Your task to perform on an android device: turn off improve location accuracy Image 0: 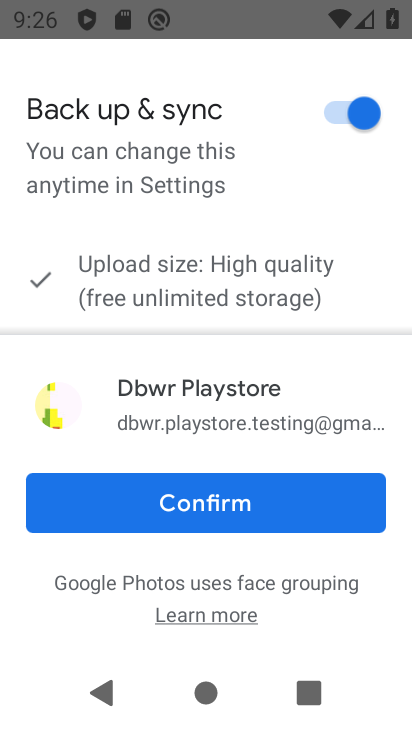
Step 0: press home button
Your task to perform on an android device: turn off improve location accuracy Image 1: 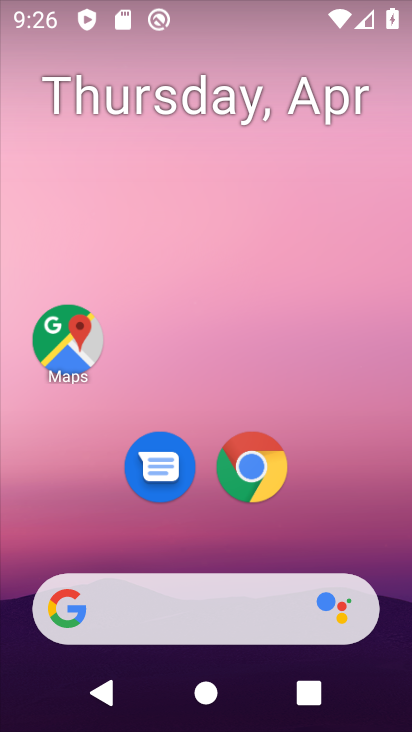
Step 1: drag from (344, 543) to (323, 235)
Your task to perform on an android device: turn off improve location accuracy Image 2: 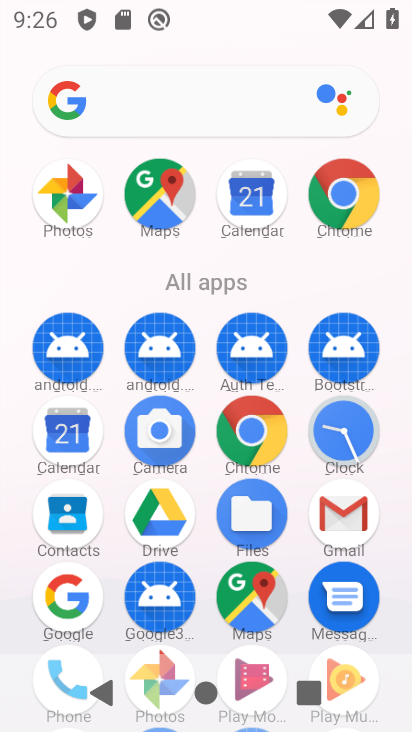
Step 2: click (409, 651)
Your task to perform on an android device: turn off improve location accuracy Image 3: 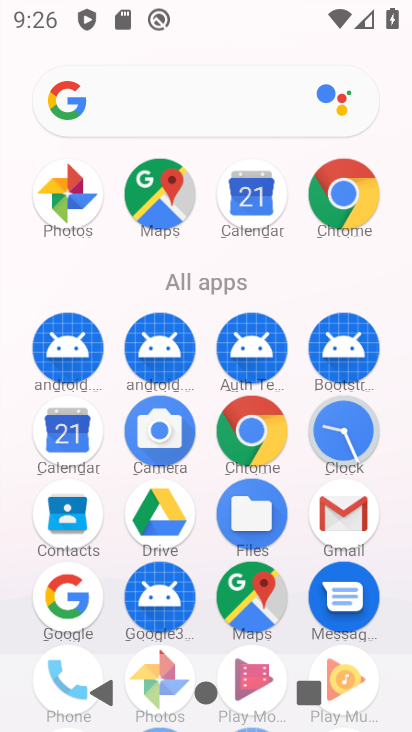
Step 3: drag from (394, 637) to (400, 386)
Your task to perform on an android device: turn off improve location accuracy Image 4: 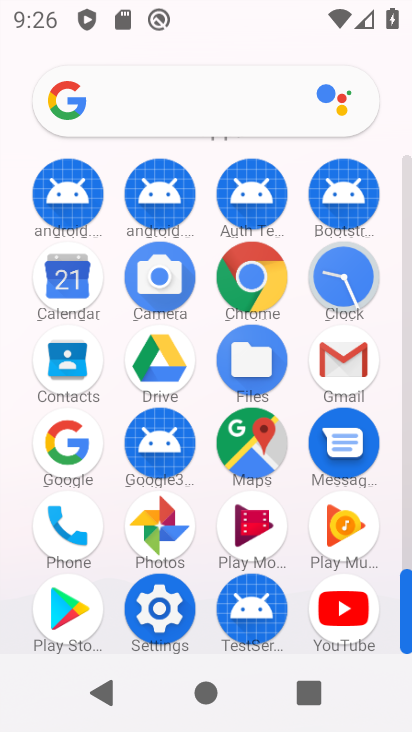
Step 4: click (153, 605)
Your task to perform on an android device: turn off improve location accuracy Image 5: 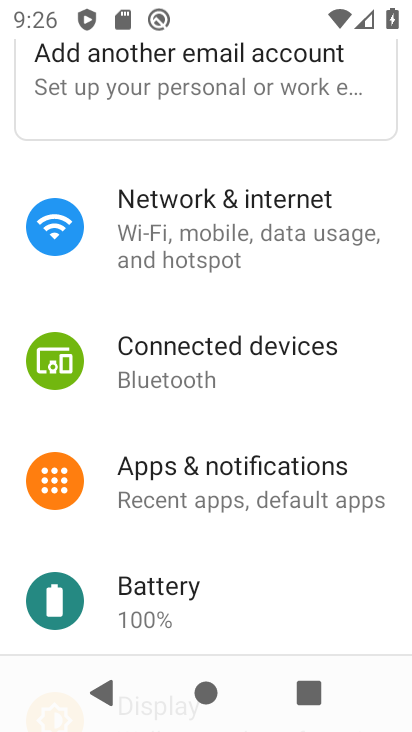
Step 5: drag from (285, 571) to (264, 290)
Your task to perform on an android device: turn off improve location accuracy Image 6: 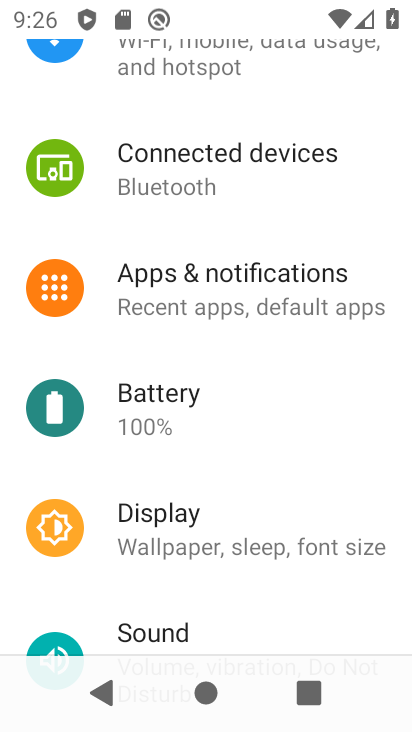
Step 6: drag from (273, 584) to (304, 268)
Your task to perform on an android device: turn off improve location accuracy Image 7: 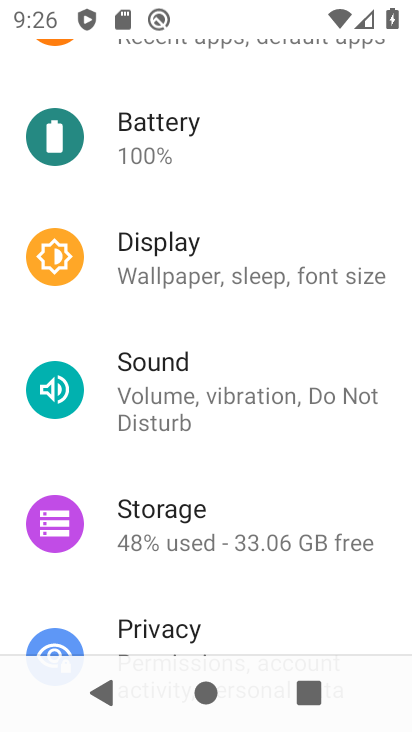
Step 7: drag from (290, 574) to (265, 209)
Your task to perform on an android device: turn off improve location accuracy Image 8: 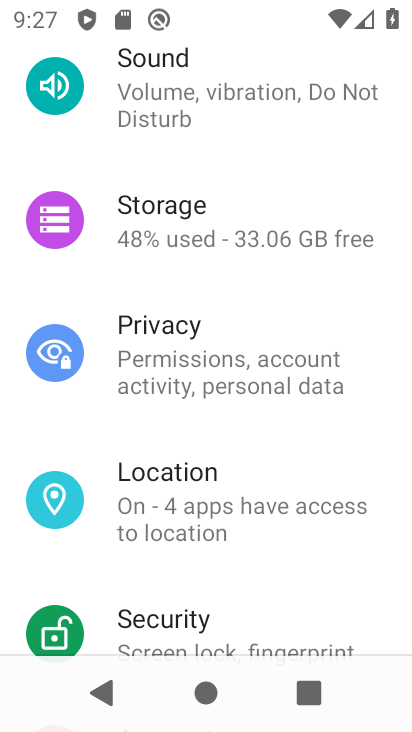
Step 8: click (212, 520)
Your task to perform on an android device: turn off improve location accuracy Image 9: 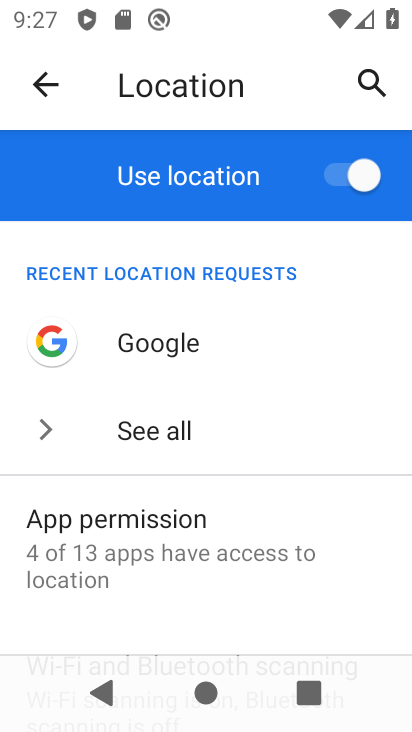
Step 9: drag from (270, 592) to (266, 266)
Your task to perform on an android device: turn off improve location accuracy Image 10: 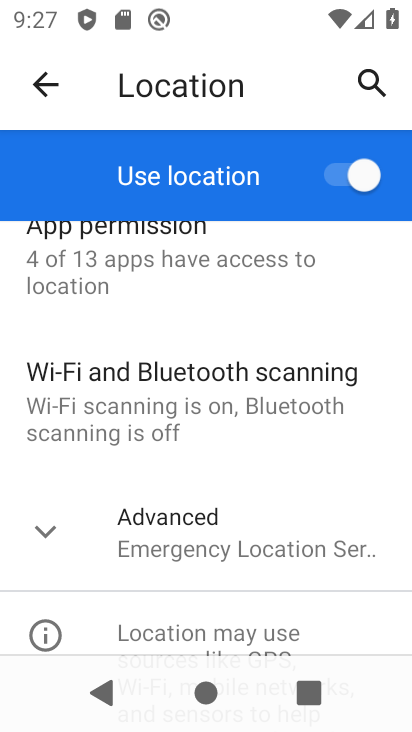
Step 10: click (278, 516)
Your task to perform on an android device: turn off improve location accuracy Image 11: 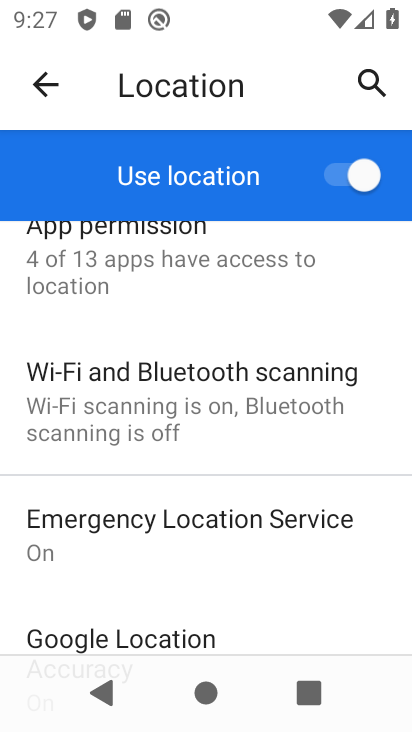
Step 11: drag from (279, 445) to (209, 177)
Your task to perform on an android device: turn off improve location accuracy Image 12: 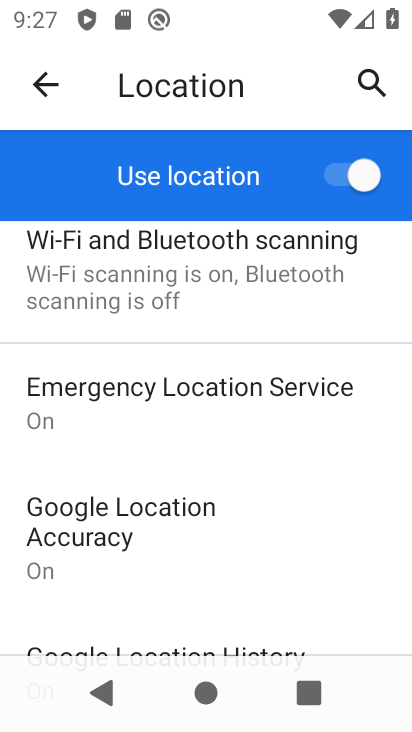
Step 12: click (288, 540)
Your task to perform on an android device: turn off improve location accuracy Image 13: 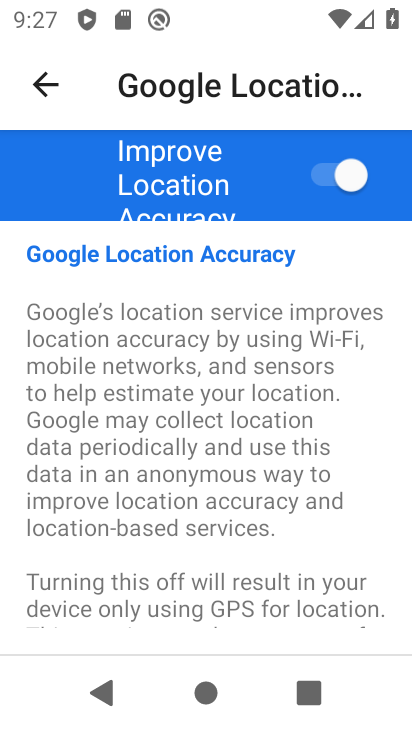
Step 13: click (323, 171)
Your task to perform on an android device: turn off improve location accuracy Image 14: 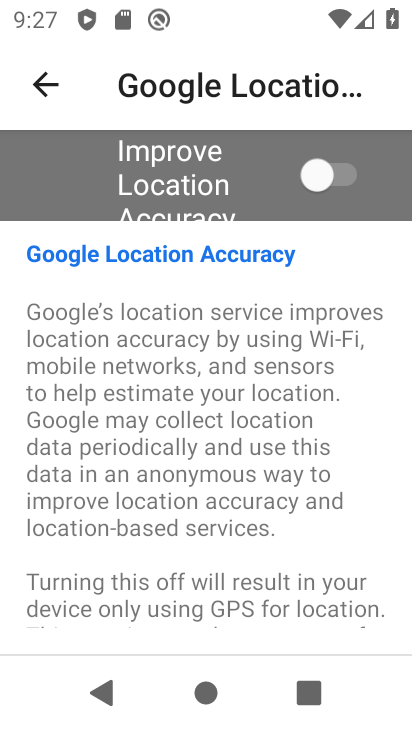
Step 14: task complete